Your task to perform on an android device: Show me recent news Image 0: 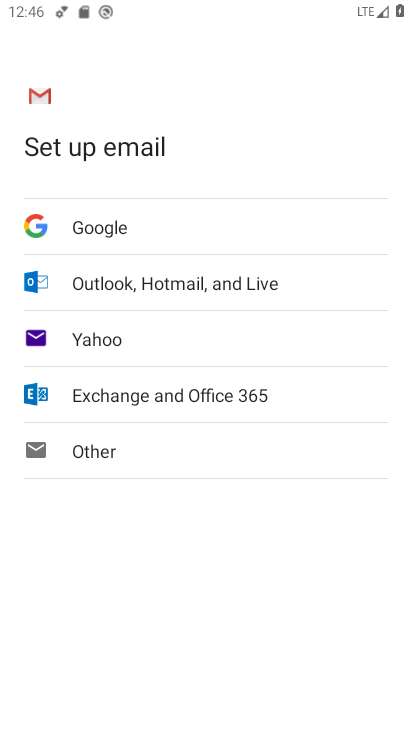
Step 0: press home button
Your task to perform on an android device: Show me recent news Image 1: 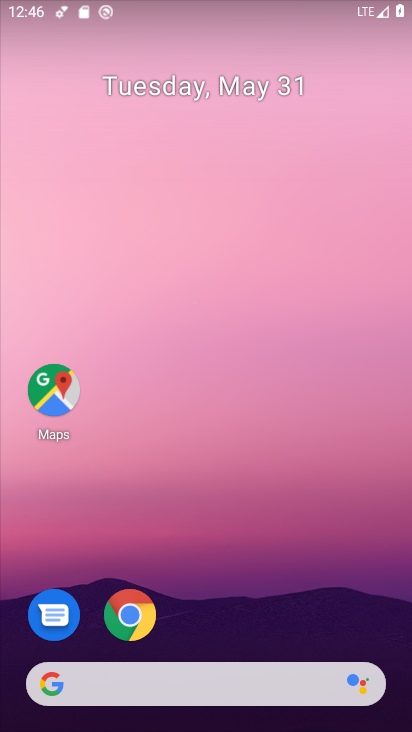
Step 1: drag from (218, 593) to (260, 147)
Your task to perform on an android device: Show me recent news Image 2: 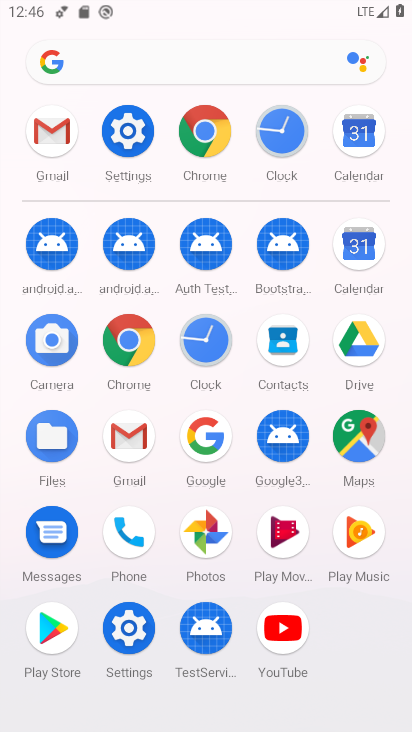
Step 2: click (213, 61)
Your task to perform on an android device: Show me recent news Image 3: 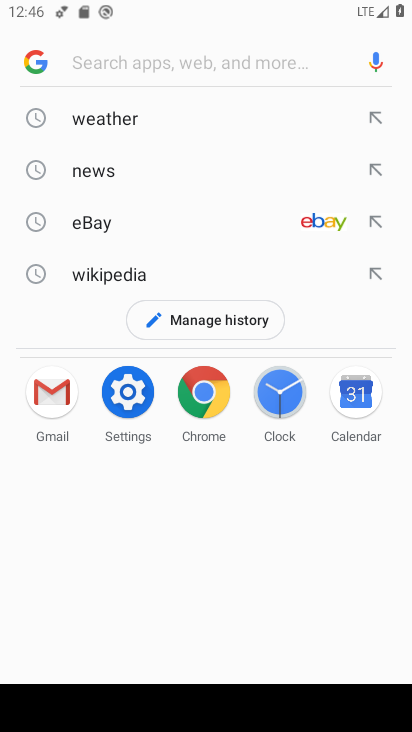
Step 3: type "recent news"
Your task to perform on an android device: Show me recent news Image 4: 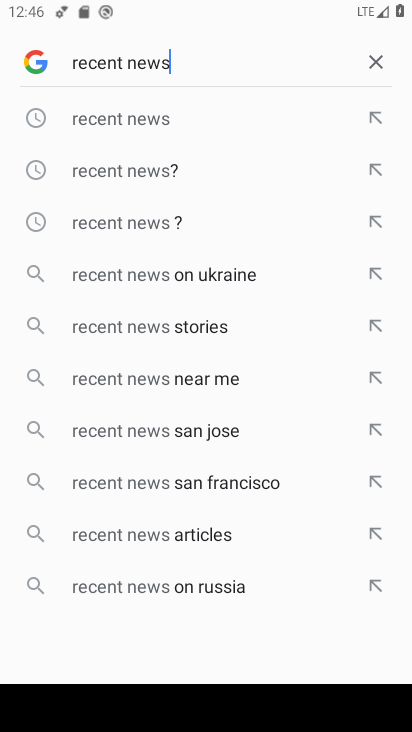
Step 4: click (175, 187)
Your task to perform on an android device: Show me recent news Image 5: 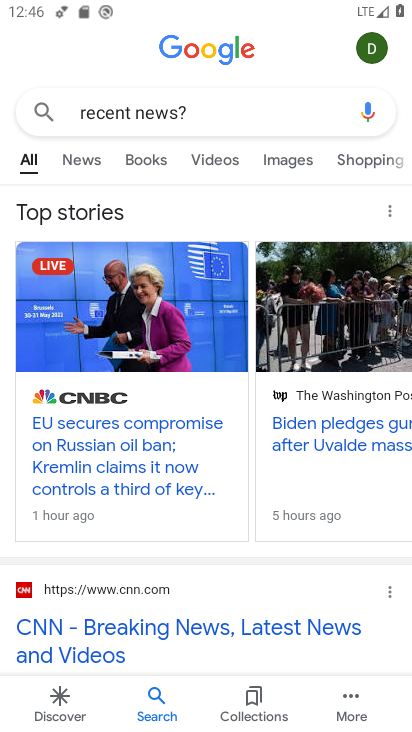
Step 5: task complete